Your task to perform on an android device: Open calendar and show me the fourth week of next month Image 0: 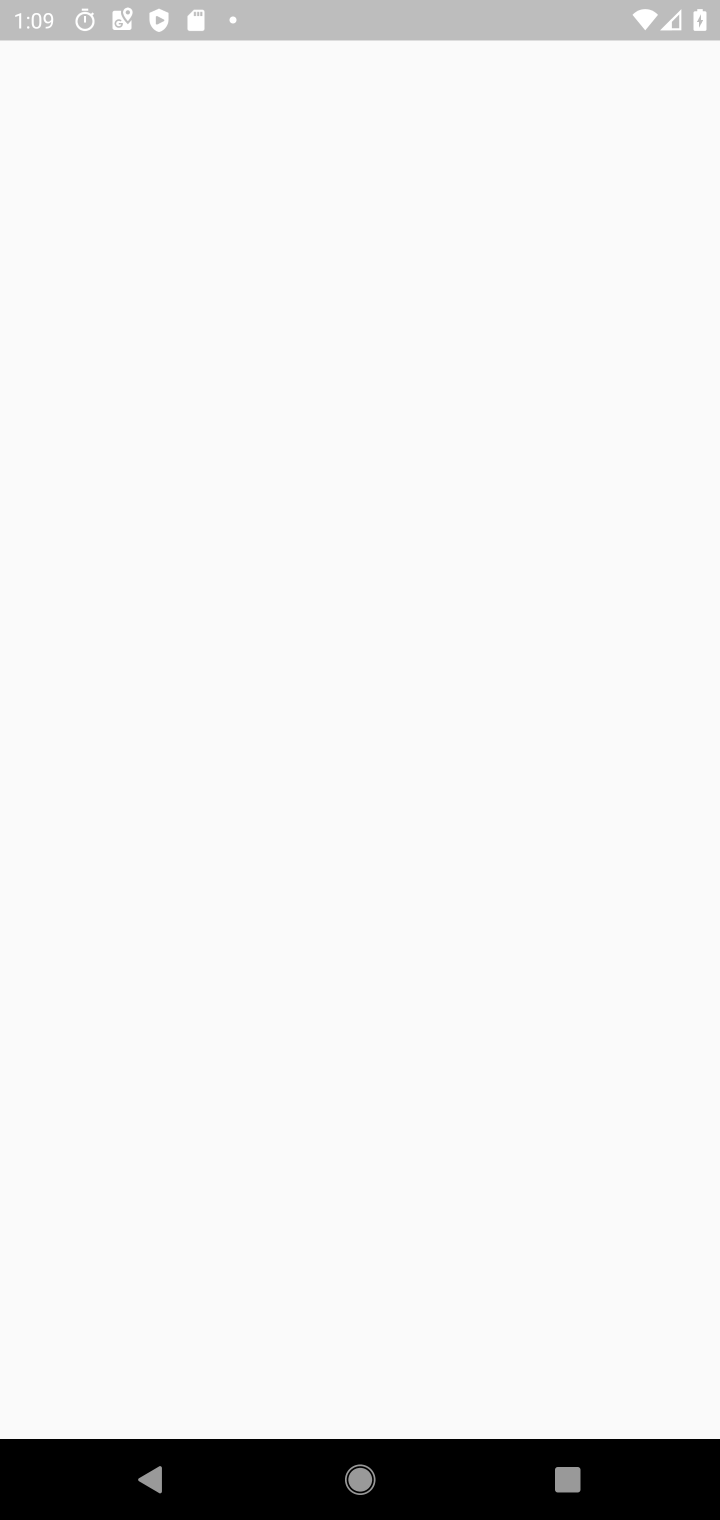
Step 0: press home button
Your task to perform on an android device: Open calendar and show me the fourth week of next month Image 1: 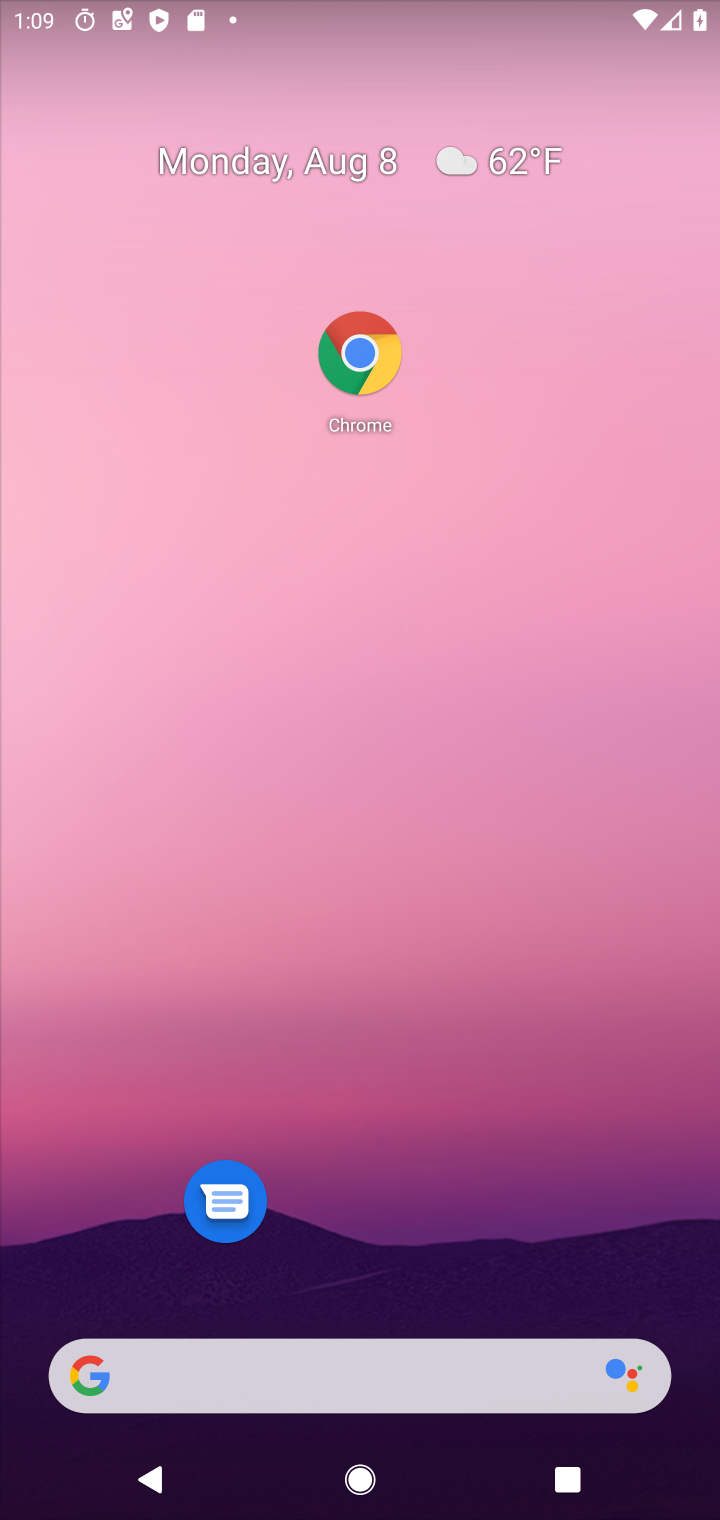
Step 1: drag from (394, 1296) to (481, 282)
Your task to perform on an android device: Open calendar and show me the fourth week of next month Image 2: 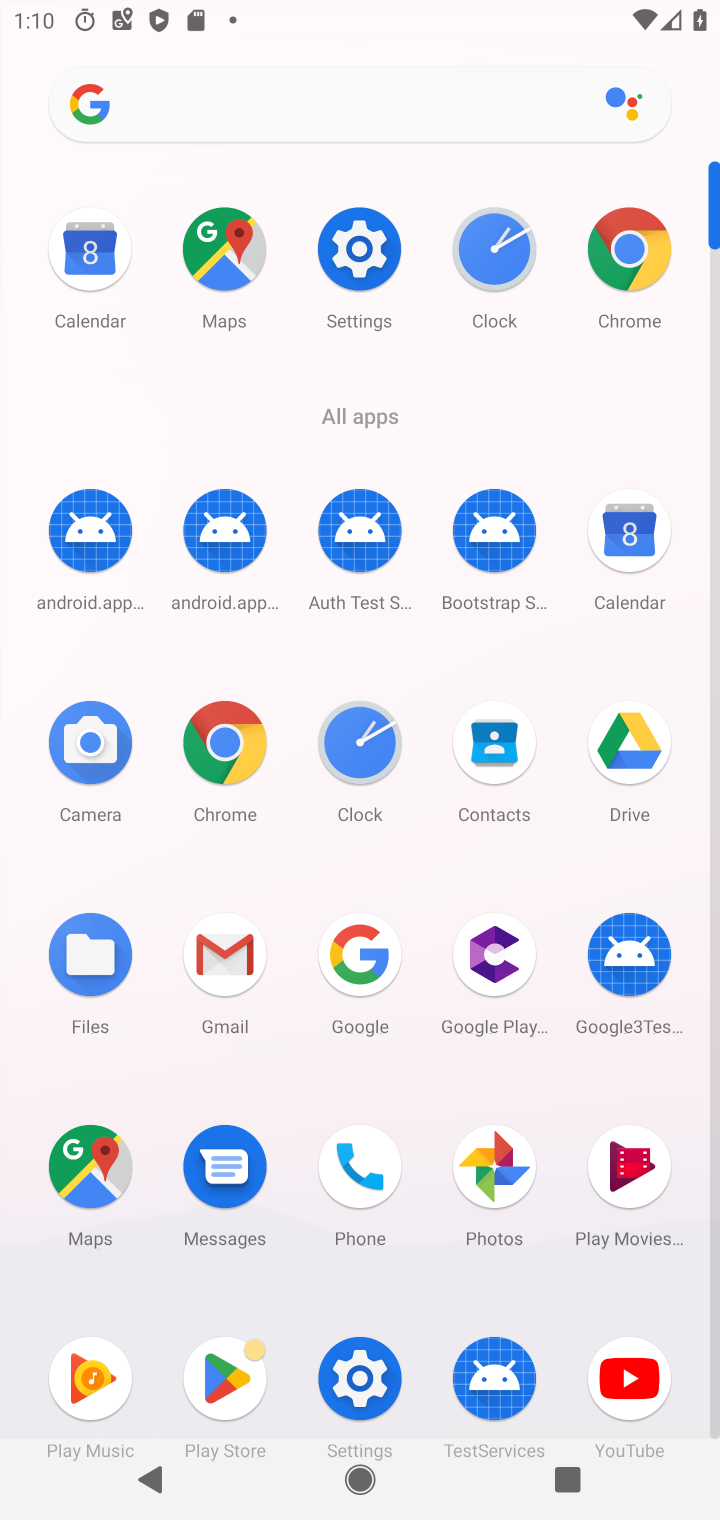
Step 2: click (586, 523)
Your task to perform on an android device: Open calendar and show me the fourth week of next month Image 3: 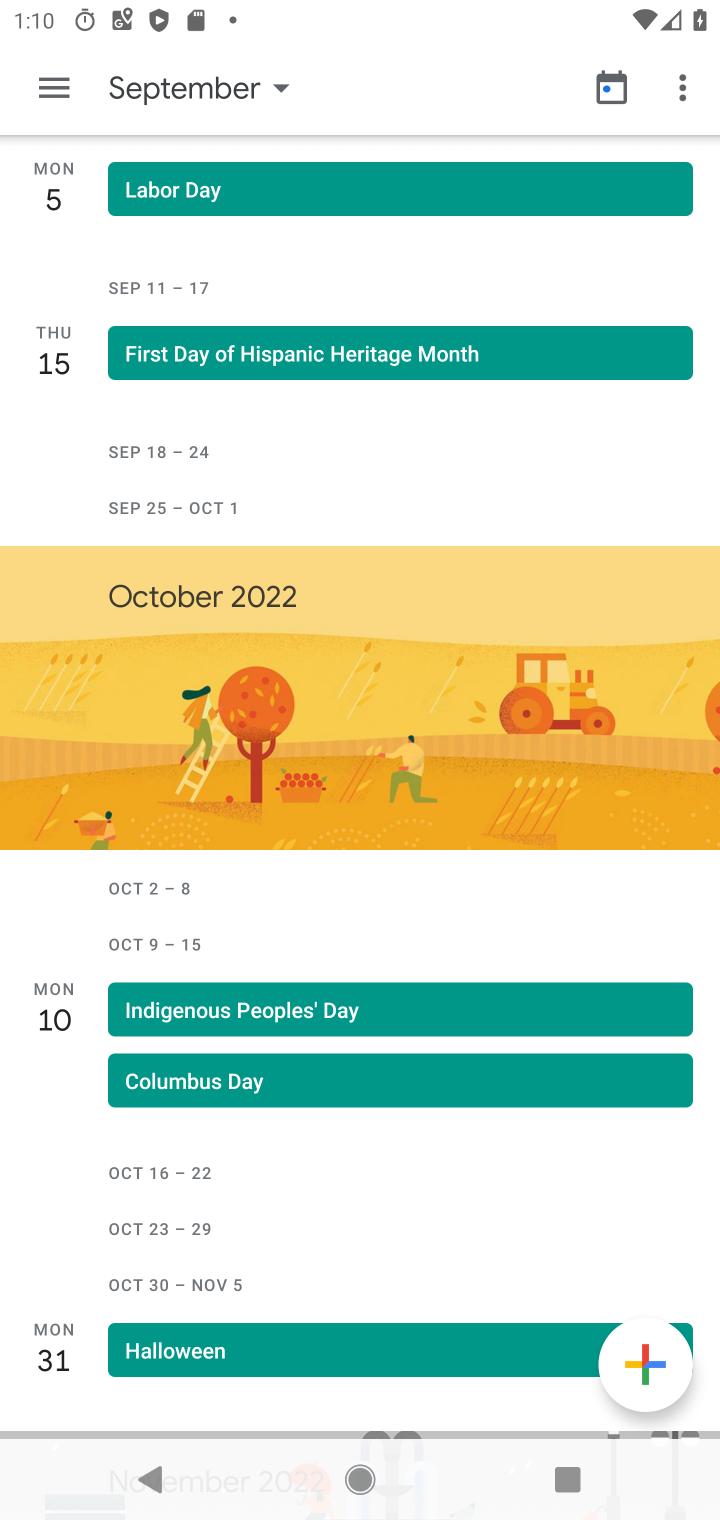
Step 3: click (81, 112)
Your task to perform on an android device: Open calendar and show me the fourth week of next month Image 4: 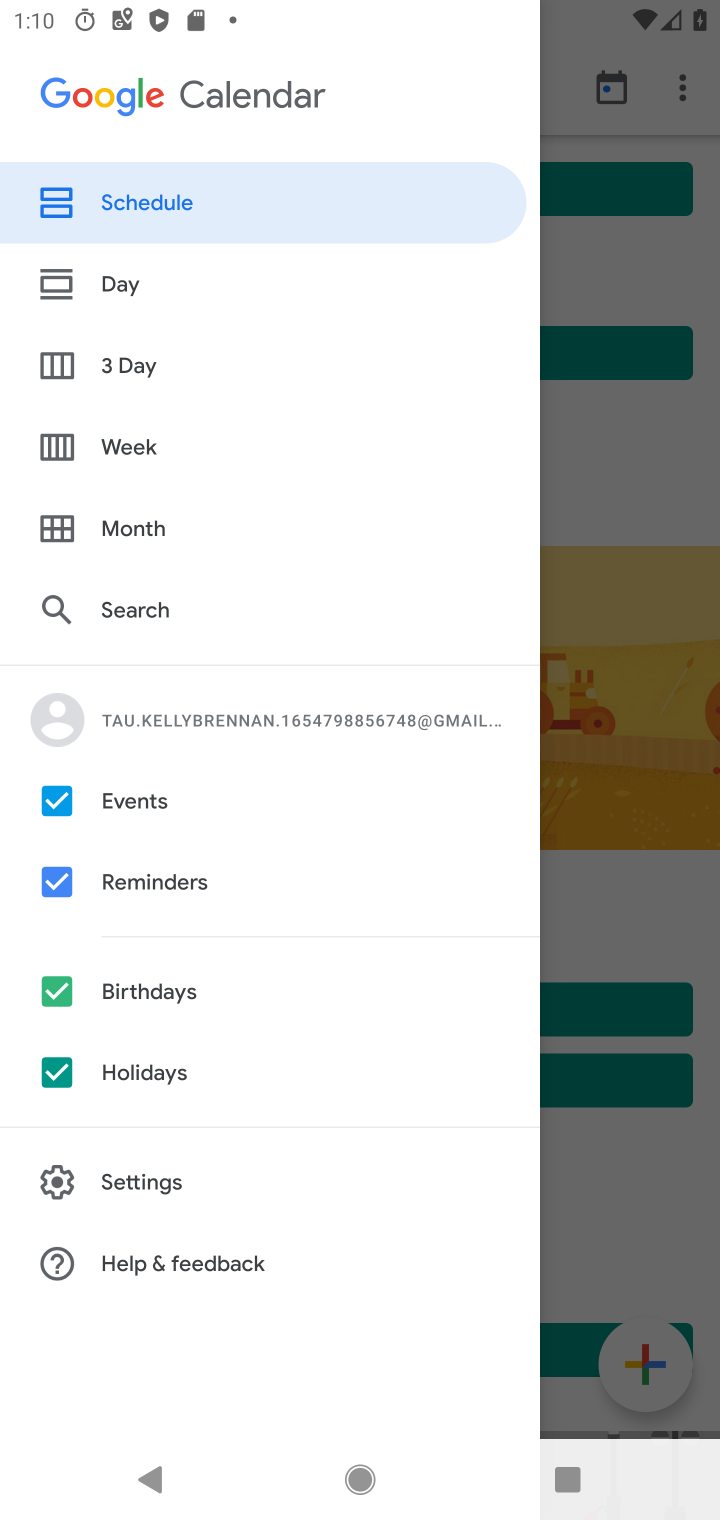
Step 4: click (146, 543)
Your task to perform on an android device: Open calendar and show me the fourth week of next month Image 5: 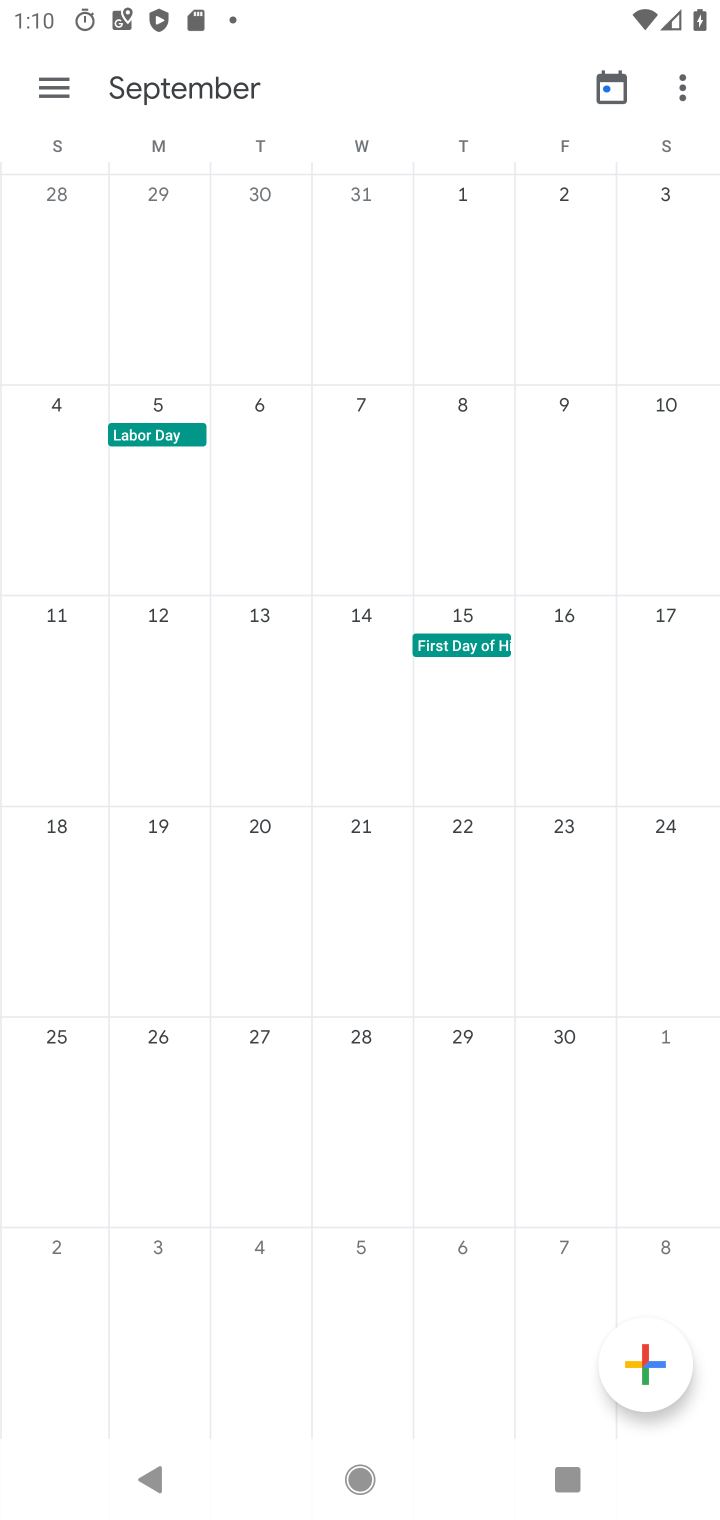
Step 5: click (175, 1063)
Your task to perform on an android device: Open calendar and show me the fourth week of next month Image 6: 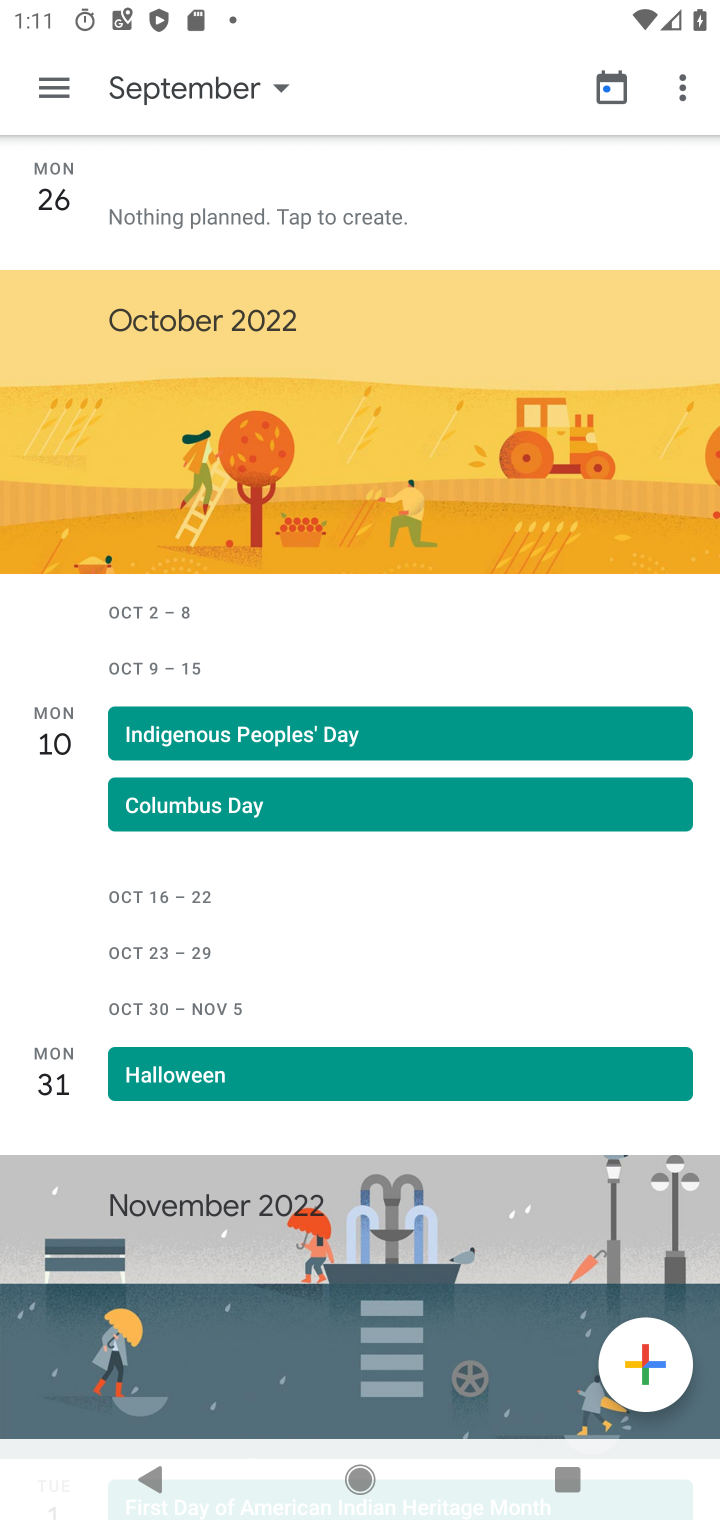
Step 6: task complete